Your task to perform on an android device: Go to network settings Image 0: 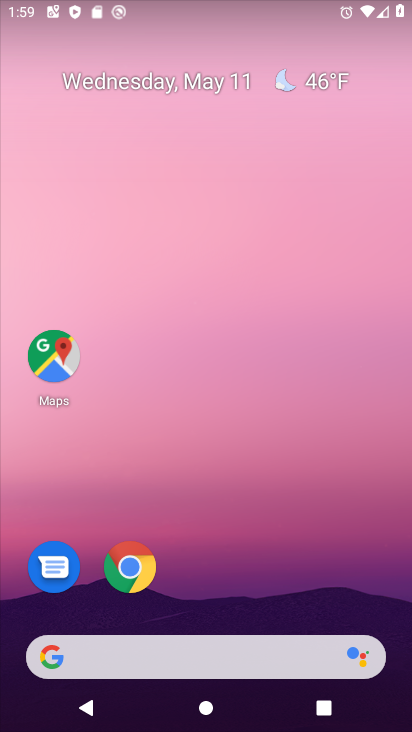
Step 0: drag from (210, 630) to (85, 10)
Your task to perform on an android device: Go to network settings Image 1: 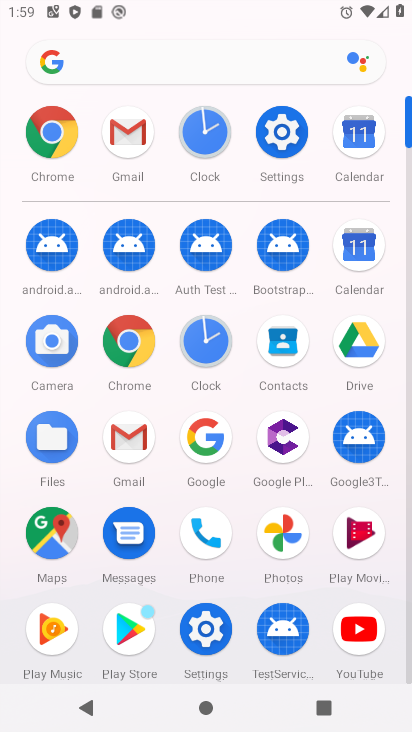
Step 1: click (291, 144)
Your task to perform on an android device: Go to network settings Image 2: 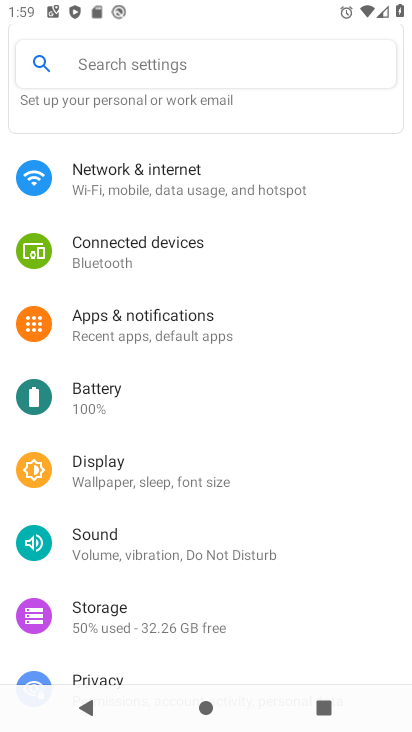
Step 2: click (106, 189)
Your task to perform on an android device: Go to network settings Image 3: 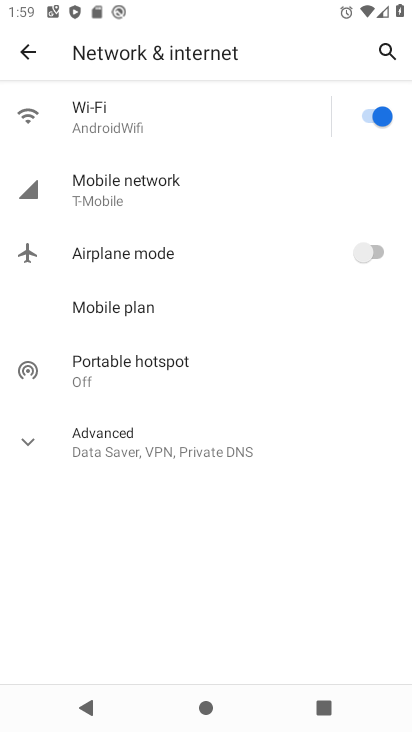
Step 3: click (185, 194)
Your task to perform on an android device: Go to network settings Image 4: 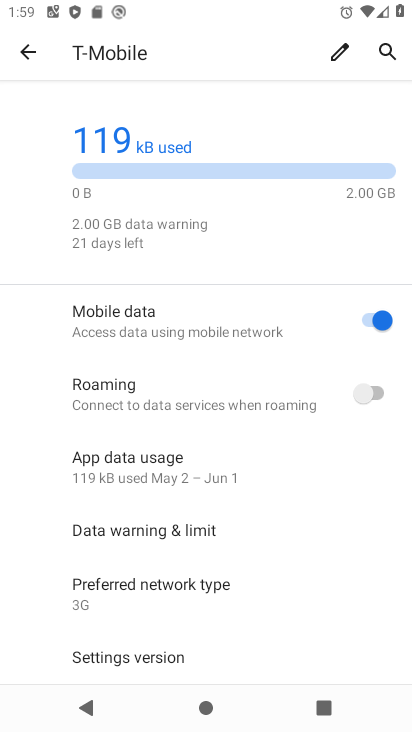
Step 4: task complete